Your task to perform on an android device: Open Reddit.com Image 0: 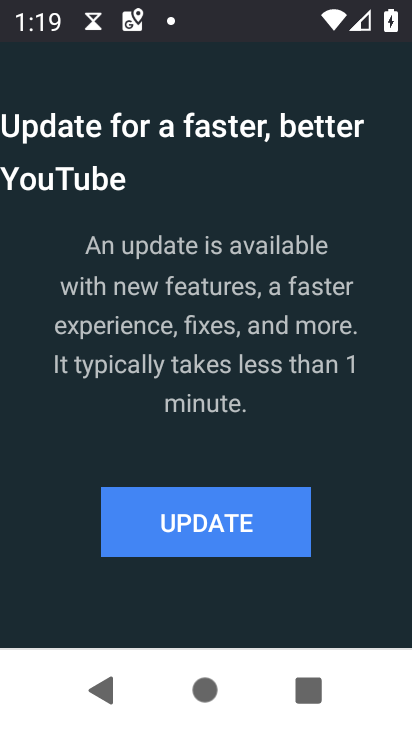
Step 0: press home button
Your task to perform on an android device: Open Reddit.com Image 1: 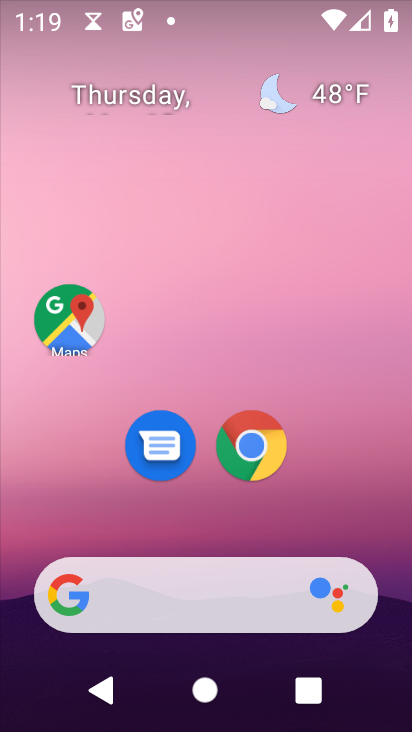
Step 1: click (256, 443)
Your task to perform on an android device: Open Reddit.com Image 2: 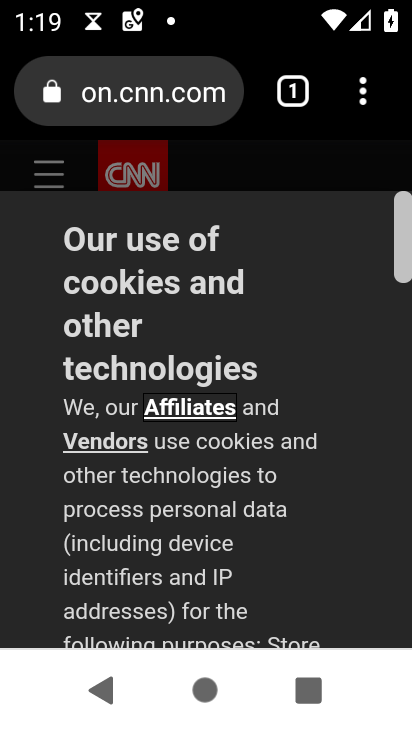
Step 2: click (300, 85)
Your task to perform on an android device: Open Reddit.com Image 3: 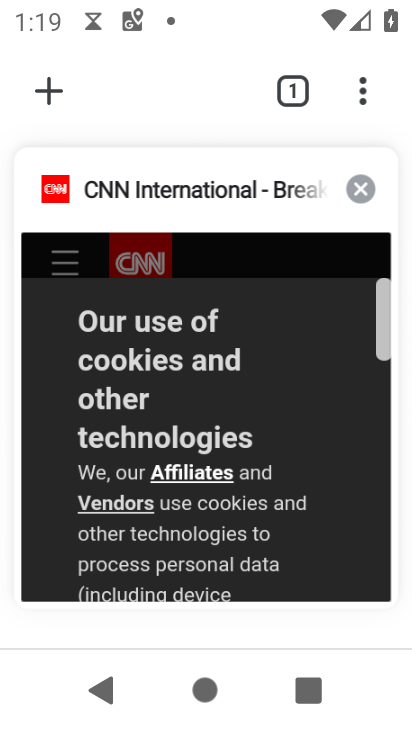
Step 3: click (55, 94)
Your task to perform on an android device: Open Reddit.com Image 4: 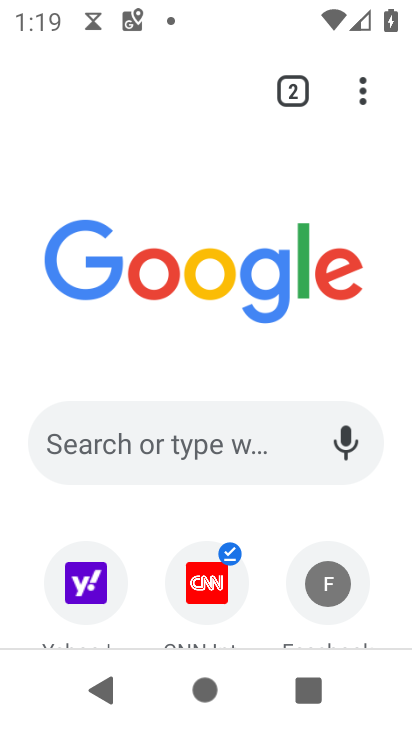
Step 4: click (212, 435)
Your task to perform on an android device: Open Reddit.com Image 5: 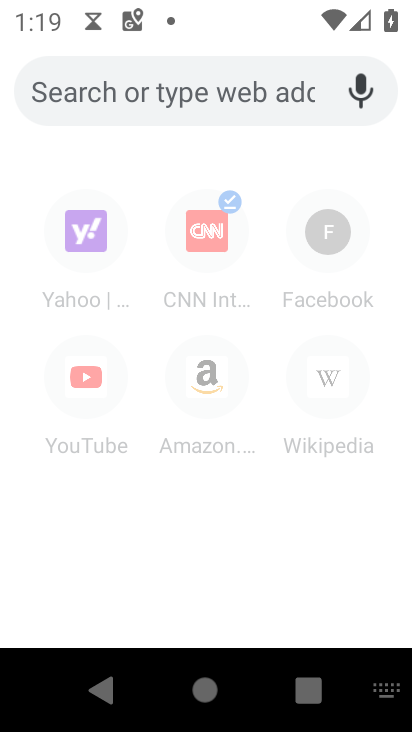
Step 5: type "Reddit.com"
Your task to perform on an android device: Open Reddit.com Image 6: 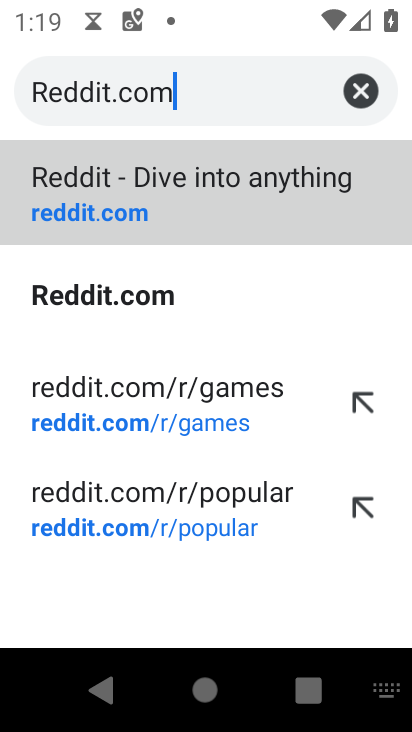
Step 6: click (231, 224)
Your task to perform on an android device: Open Reddit.com Image 7: 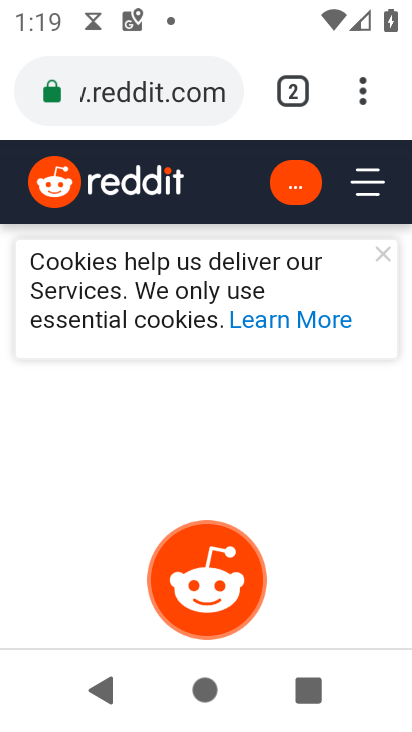
Step 7: task complete